Your task to perform on an android device: toggle javascript in the chrome app Image 0: 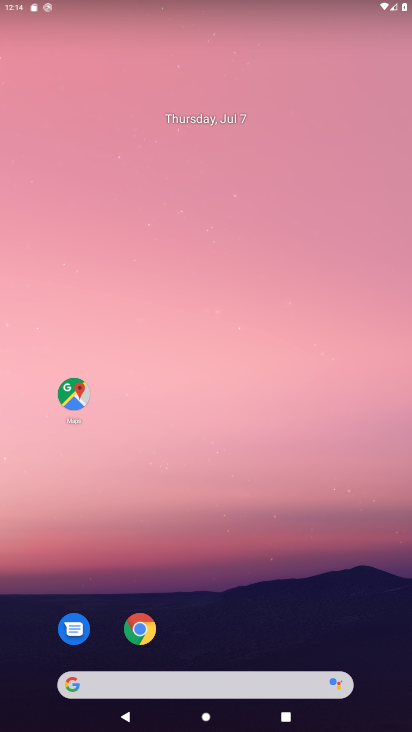
Step 0: drag from (303, 616) to (214, 132)
Your task to perform on an android device: toggle javascript in the chrome app Image 1: 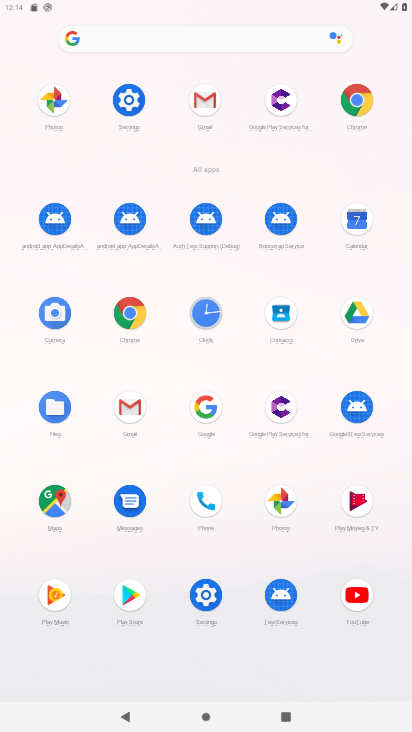
Step 1: click (359, 89)
Your task to perform on an android device: toggle javascript in the chrome app Image 2: 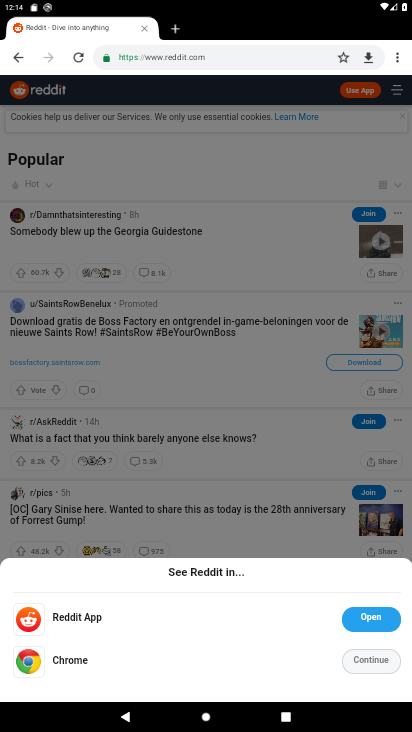
Step 2: click (398, 53)
Your task to perform on an android device: toggle javascript in the chrome app Image 3: 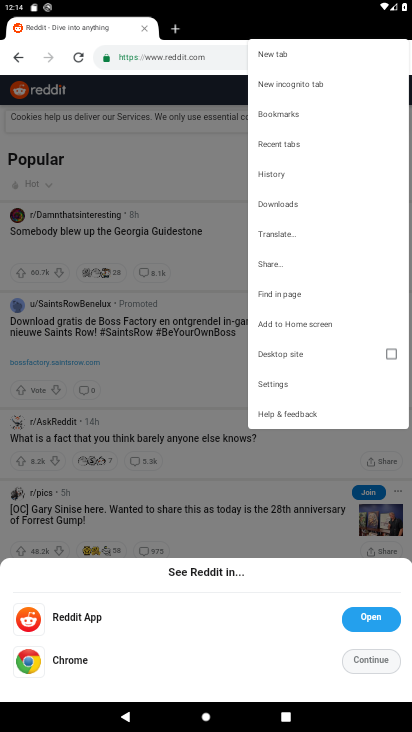
Step 3: click (308, 383)
Your task to perform on an android device: toggle javascript in the chrome app Image 4: 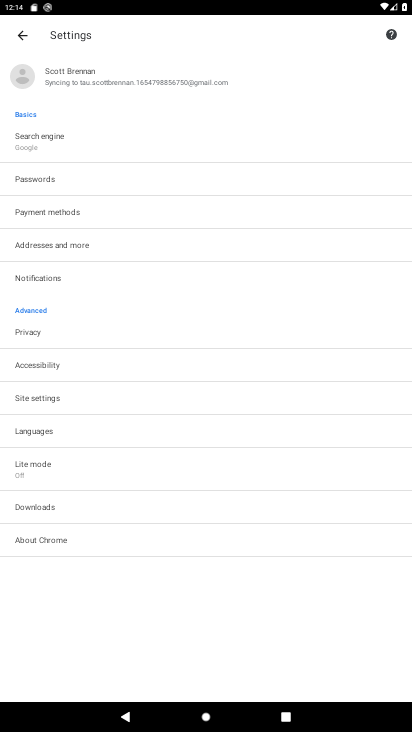
Step 4: click (147, 402)
Your task to perform on an android device: toggle javascript in the chrome app Image 5: 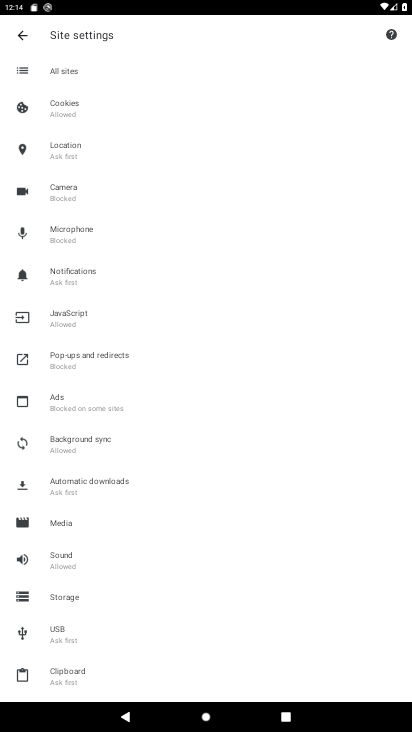
Step 5: click (124, 315)
Your task to perform on an android device: toggle javascript in the chrome app Image 6: 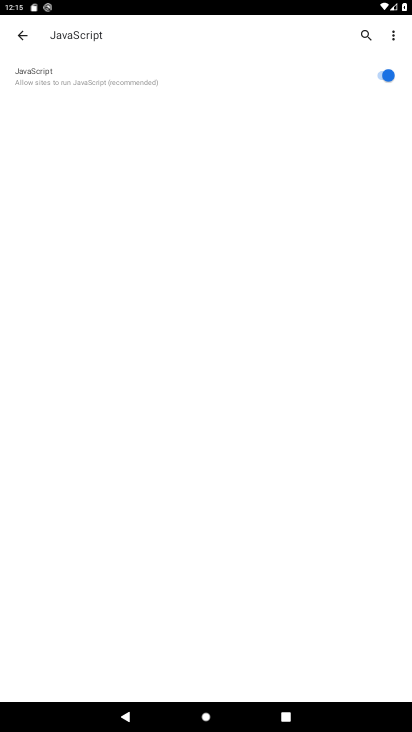
Step 6: click (383, 74)
Your task to perform on an android device: toggle javascript in the chrome app Image 7: 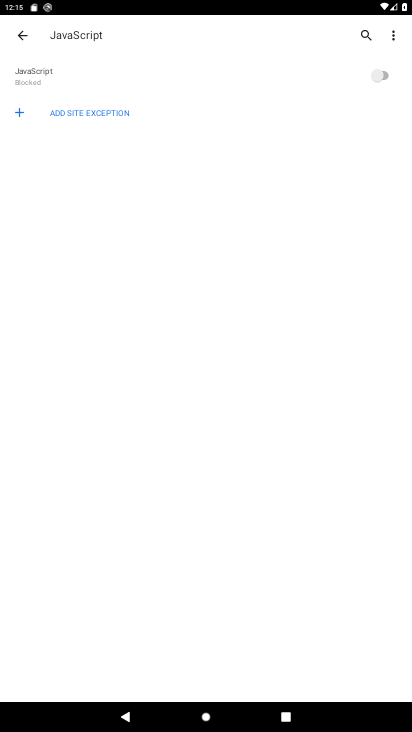
Step 7: task complete